Your task to perform on an android device: Turn off the flashlight Image 0: 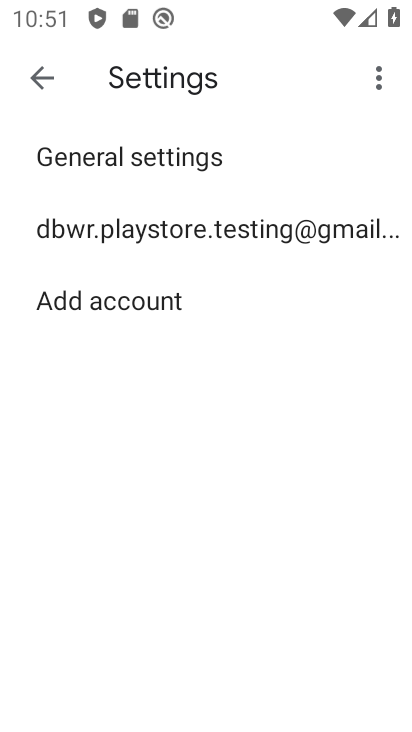
Step 0: drag from (370, 9) to (410, 589)
Your task to perform on an android device: Turn off the flashlight Image 1: 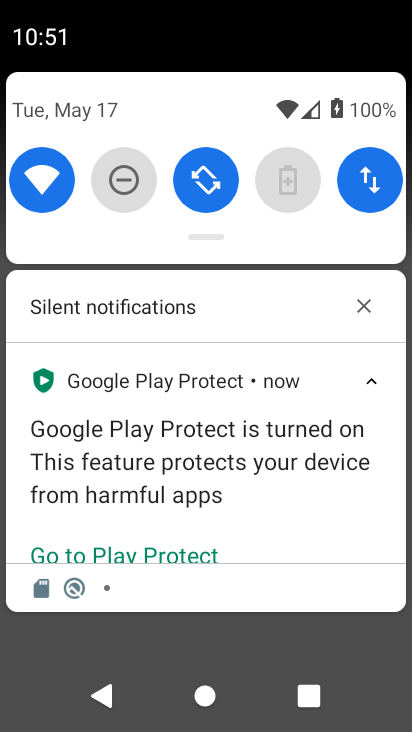
Step 1: drag from (243, 233) to (271, 559)
Your task to perform on an android device: Turn off the flashlight Image 2: 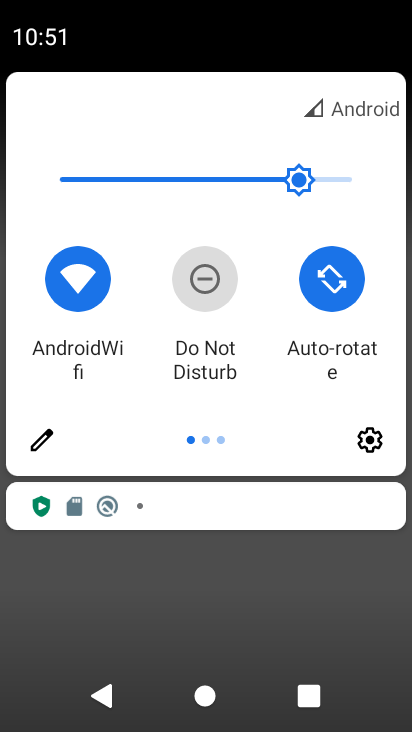
Step 2: click (47, 445)
Your task to perform on an android device: Turn off the flashlight Image 3: 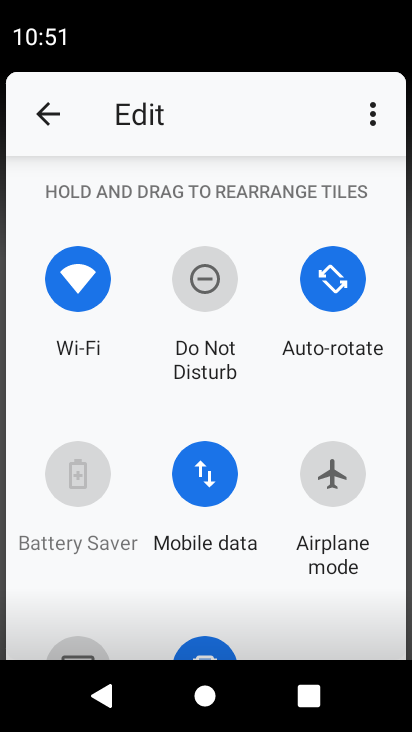
Step 3: task complete